Your task to perform on an android device: Go to sound settings Image 0: 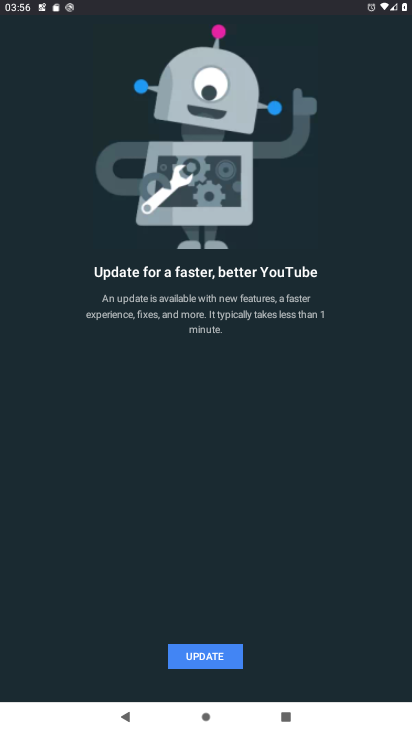
Step 0: press back button
Your task to perform on an android device: Go to sound settings Image 1: 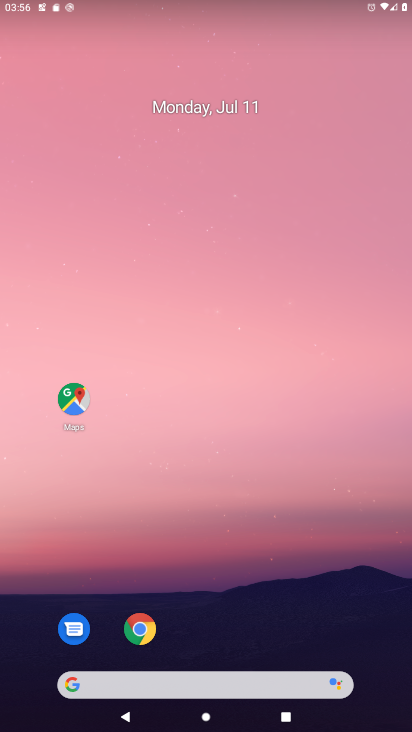
Step 1: drag from (227, 632) to (285, 7)
Your task to perform on an android device: Go to sound settings Image 2: 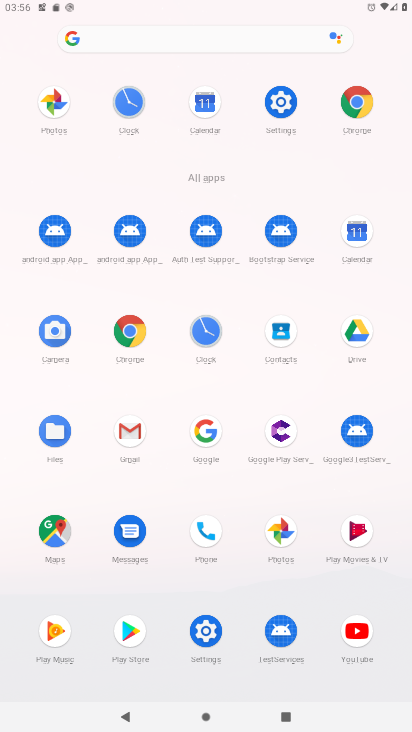
Step 2: click (286, 88)
Your task to perform on an android device: Go to sound settings Image 3: 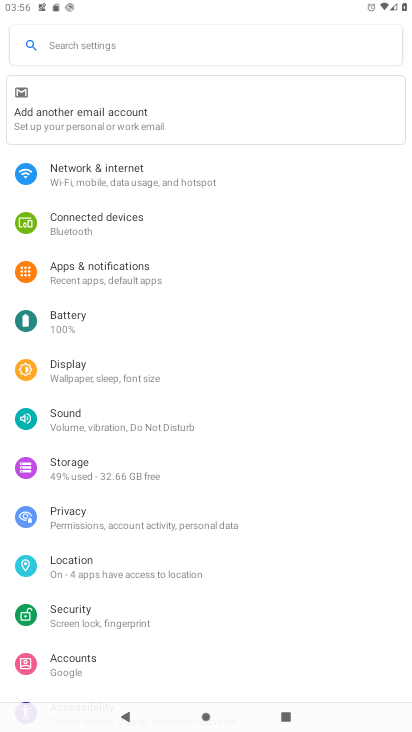
Step 3: click (78, 410)
Your task to perform on an android device: Go to sound settings Image 4: 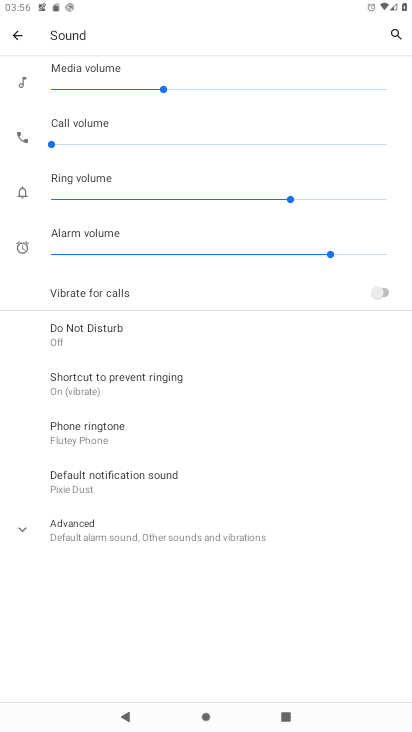
Step 4: task complete